Your task to perform on an android device: Go to privacy settings Image 0: 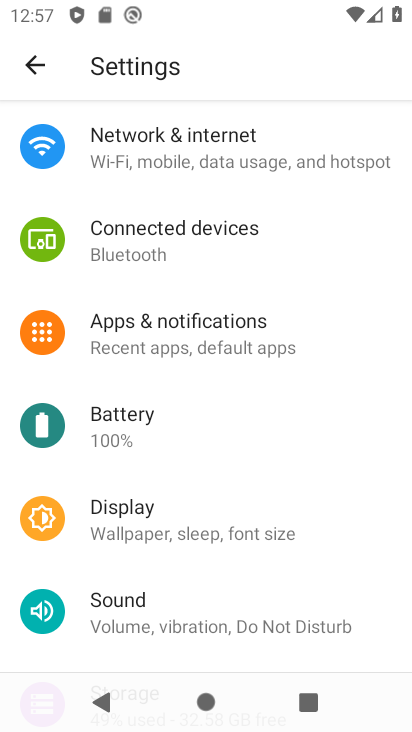
Step 0: press home button
Your task to perform on an android device: Go to privacy settings Image 1: 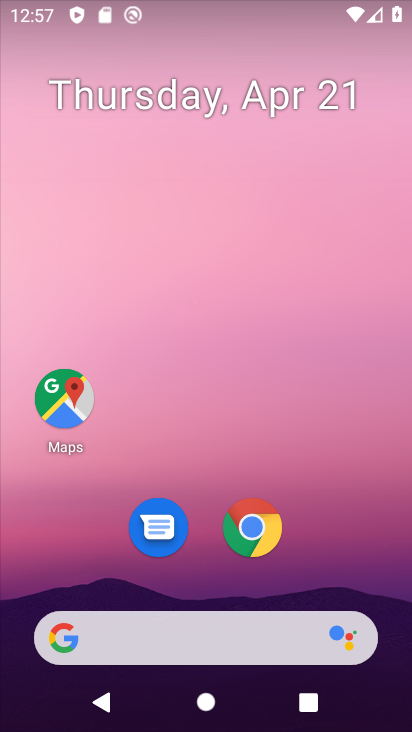
Step 1: drag from (338, 572) to (334, 123)
Your task to perform on an android device: Go to privacy settings Image 2: 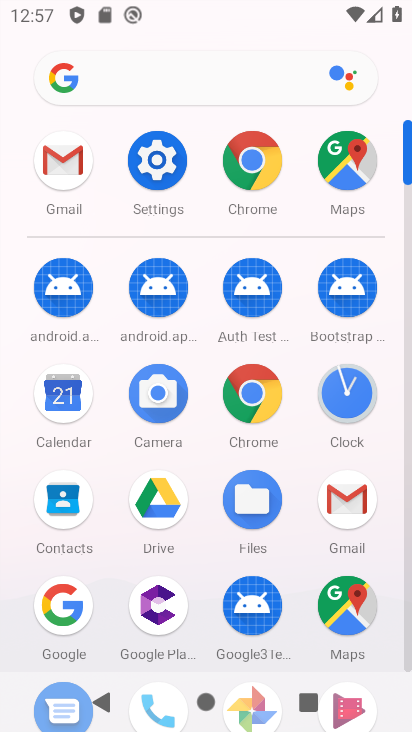
Step 2: click (149, 182)
Your task to perform on an android device: Go to privacy settings Image 3: 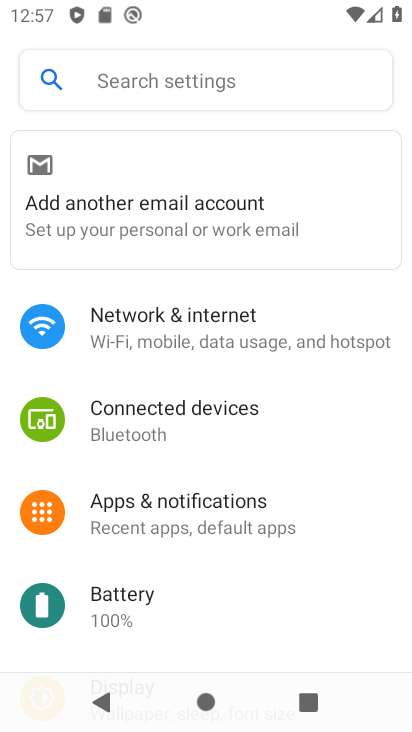
Step 3: drag from (346, 553) to (376, 459)
Your task to perform on an android device: Go to privacy settings Image 4: 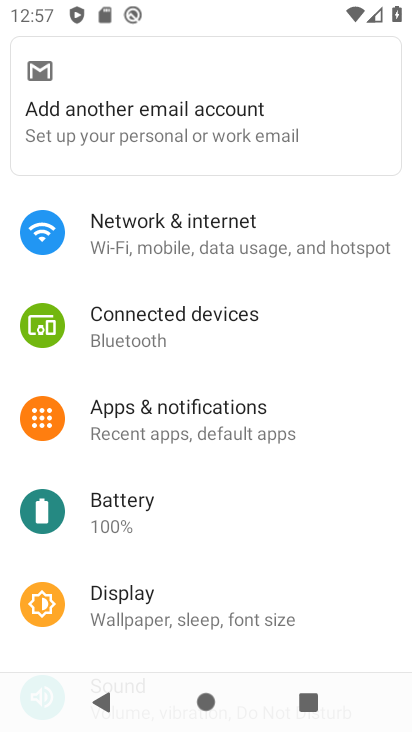
Step 4: drag from (363, 551) to (358, 413)
Your task to perform on an android device: Go to privacy settings Image 5: 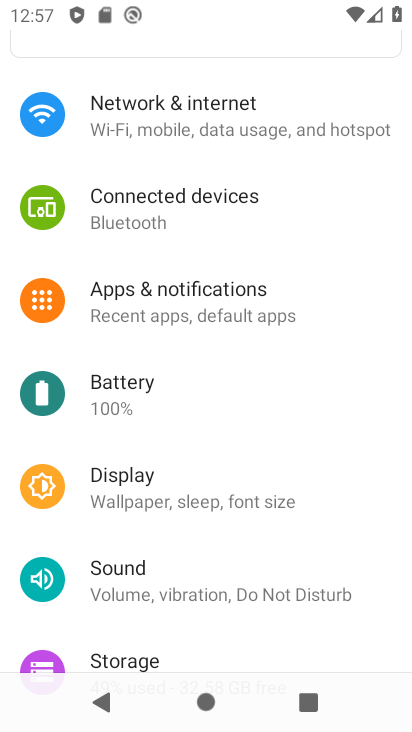
Step 5: drag from (346, 524) to (347, 393)
Your task to perform on an android device: Go to privacy settings Image 6: 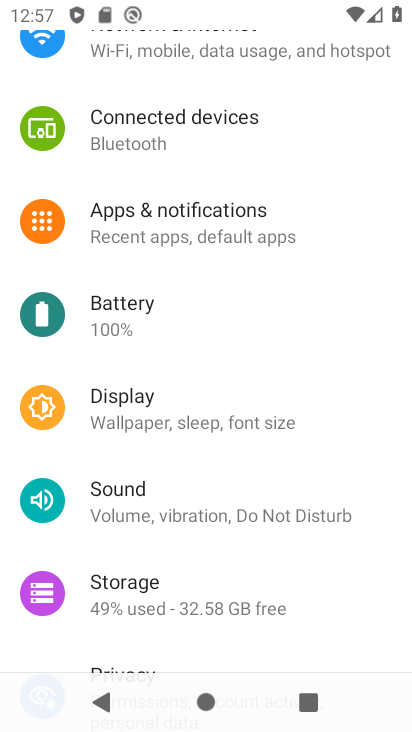
Step 6: drag from (352, 571) to (365, 432)
Your task to perform on an android device: Go to privacy settings Image 7: 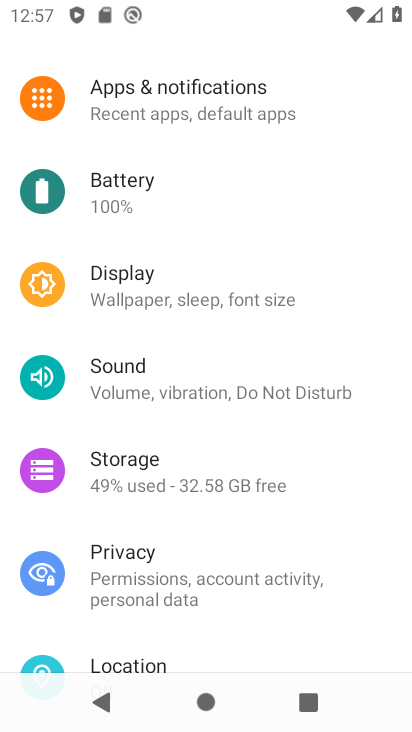
Step 7: drag from (363, 602) to (366, 462)
Your task to perform on an android device: Go to privacy settings Image 8: 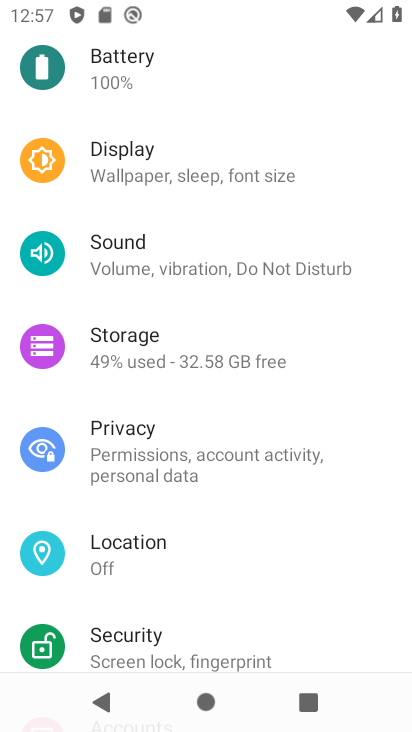
Step 8: drag from (360, 560) to (367, 441)
Your task to perform on an android device: Go to privacy settings Image 9: 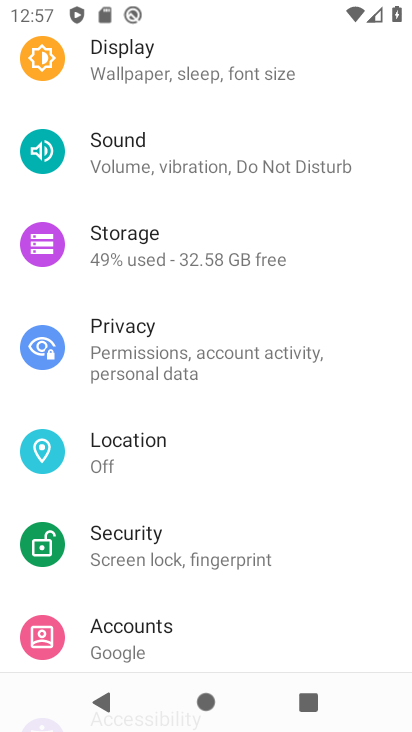
Step 9: drag from (350, 564) to (342, 467)
Your task to perform on an android device: Go to privacy settings Image 10: 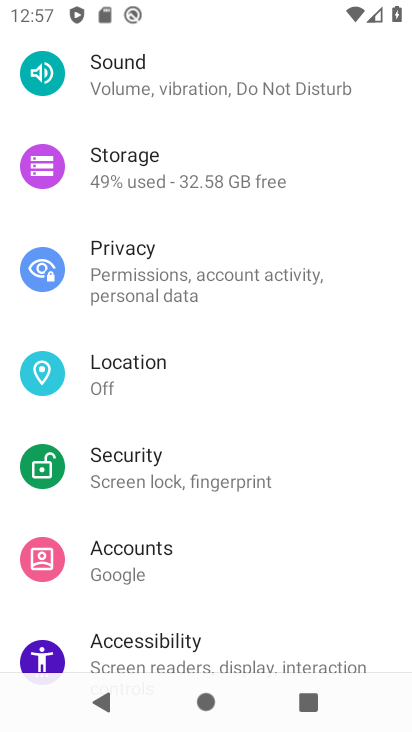
Step 10: click (174, 272)
Your task to perform on an android device: Go to privacy settings Image 11: 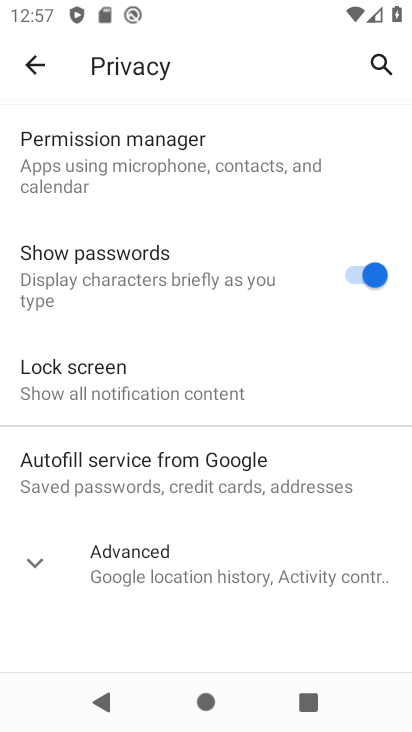
Step 11: task complete